Your task to perform on an android device: Open the phone app and click the voicemail tab. Image 0: 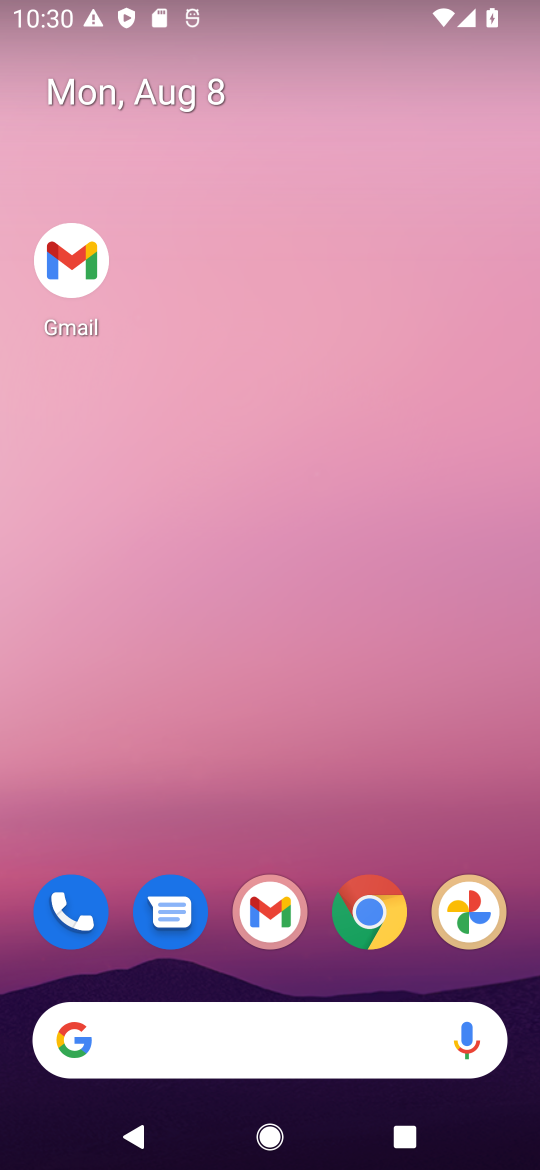
Step 0: click (72, 232)
Your task to perform on an android device: Open the phone app and click the voicemail tab. Image 1: 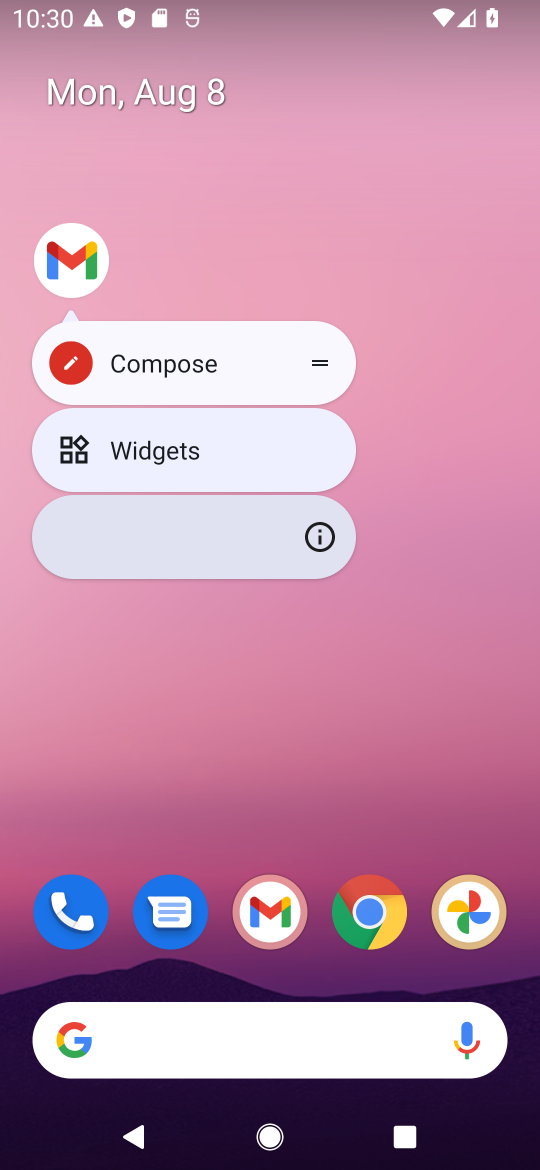
Step 1: drag from (458, 576) to (526, 680)
Your task to perform on an android device: Open the phone app and click the voicemail tab. Image 2: 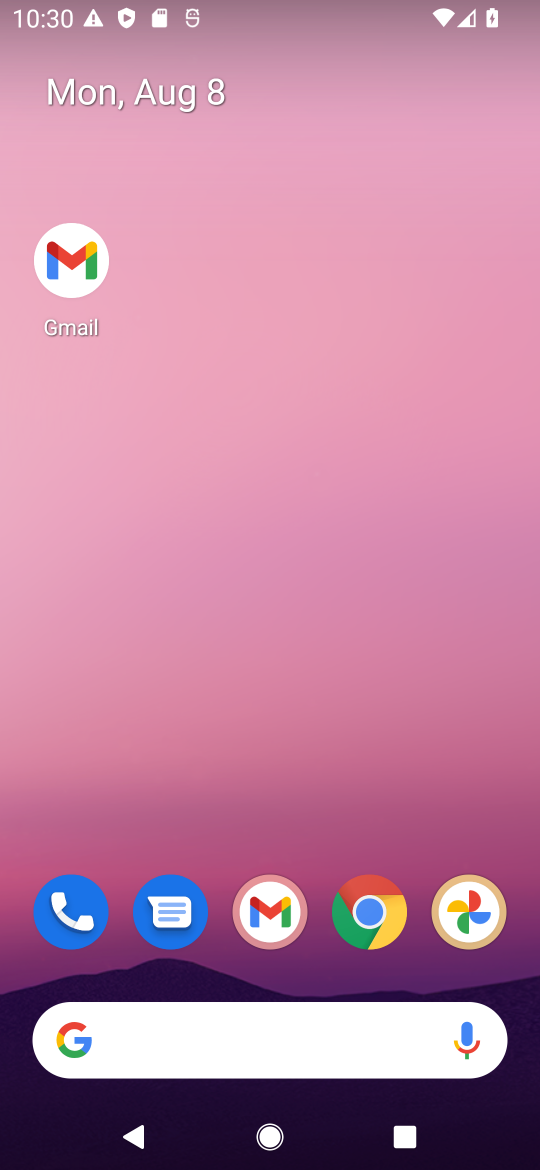
Step 2: drag from (410, 835) to (449, 376)
Your task to perform on an android device: Open the phone app and click the voicemail tab. Image 3: 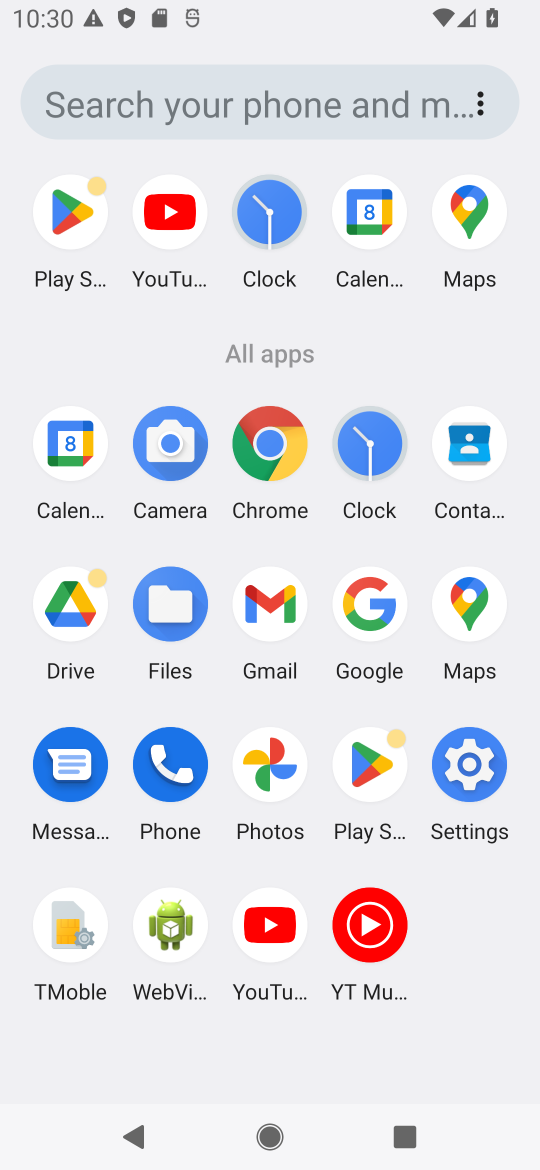
Step 3: click (152, 754)
Your task to perform on an android device: Open the phone app and click the voicemail tab. Image 4: 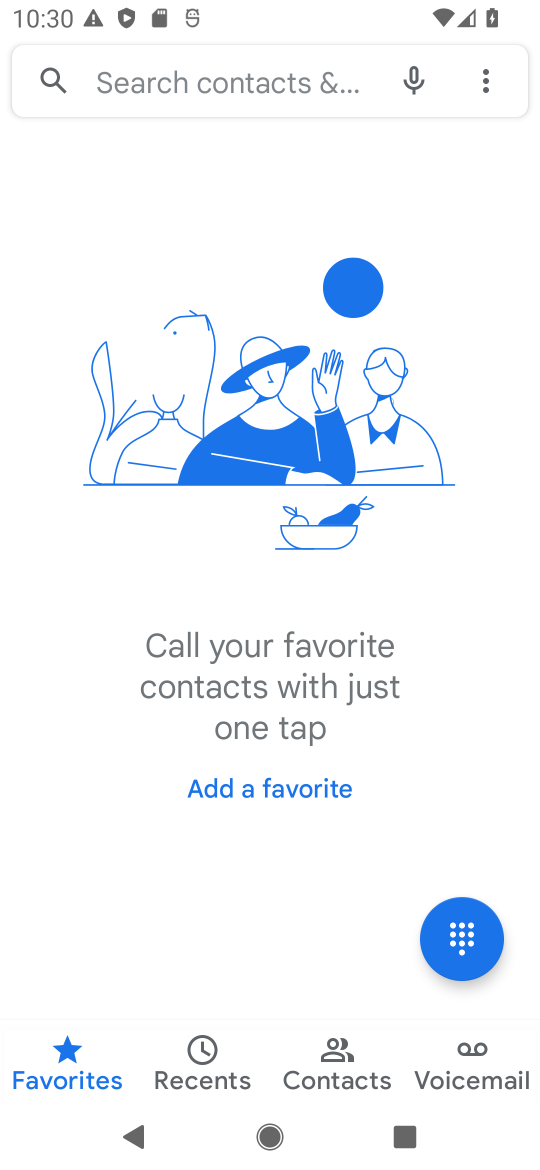
Step 4: click (474, 1037)
Your task to perform on an android device: Open the phone app and click the voicemail tab. Image 5: 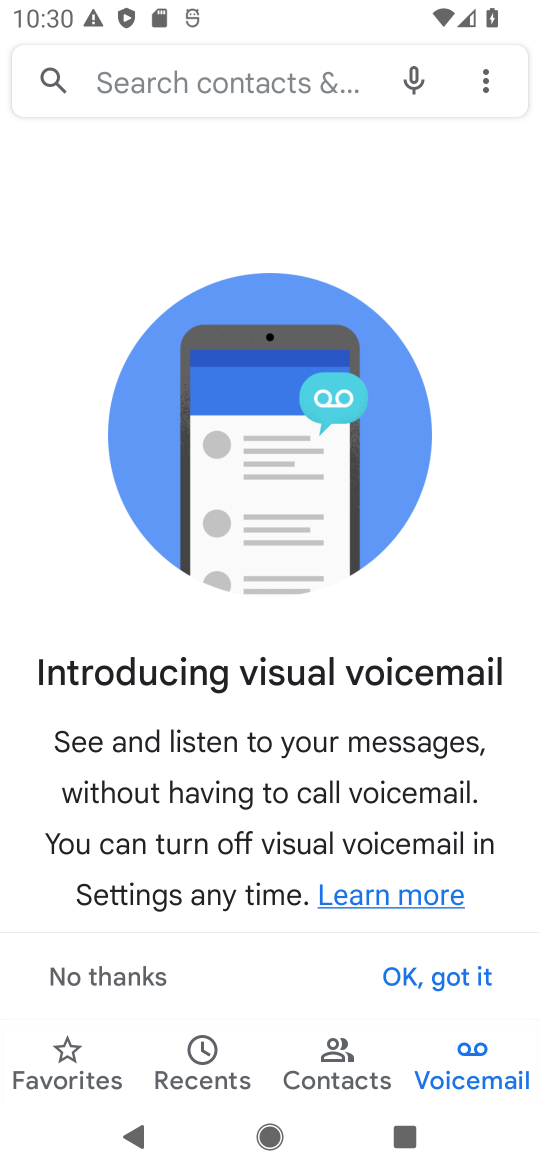
Step 5: task complete